Your task to perform on an android device: Go to ESPN.com Image 0: 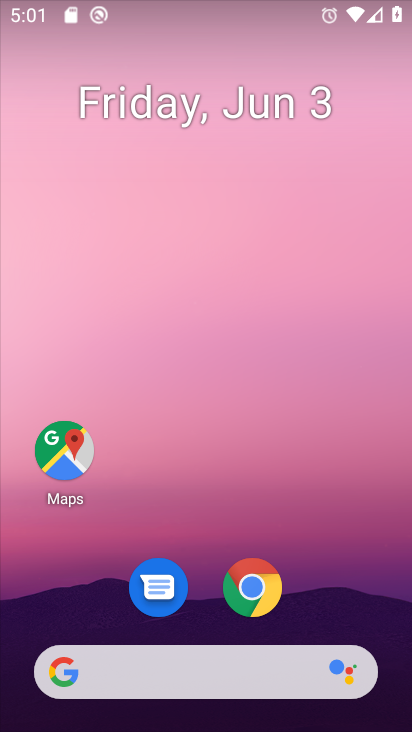
Step 0: click (267, 588)
Your task to perform on an android device: Go to ESPN.com Image 1: 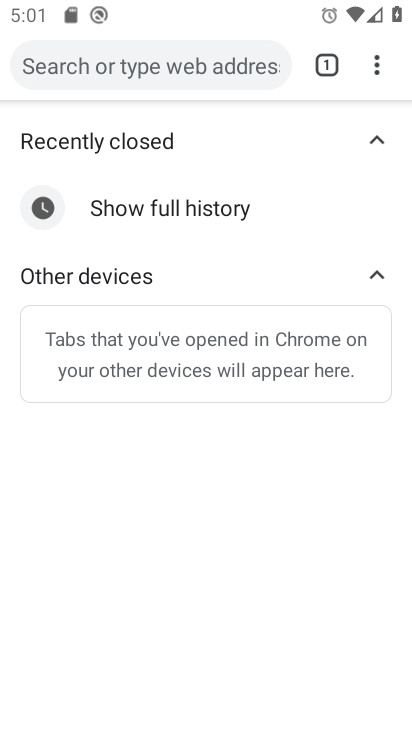
Step 1: click (330, 73)
Your task to perform on an android device: Go to ESPN.com Image 2: 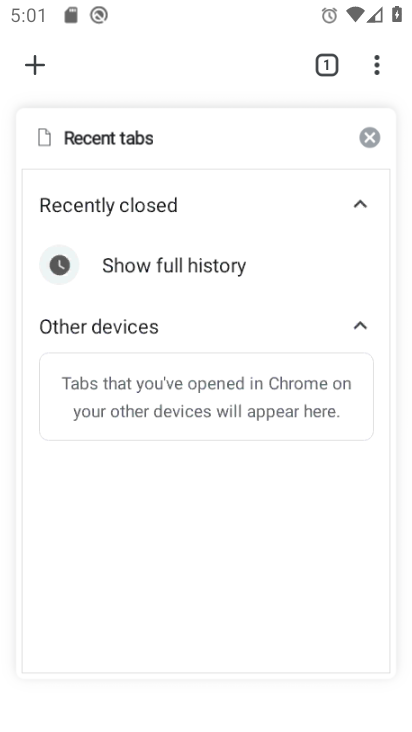
Step 2: click (370, 142)
Your task to perform on an android device: Go to ESPN.com Image 3: 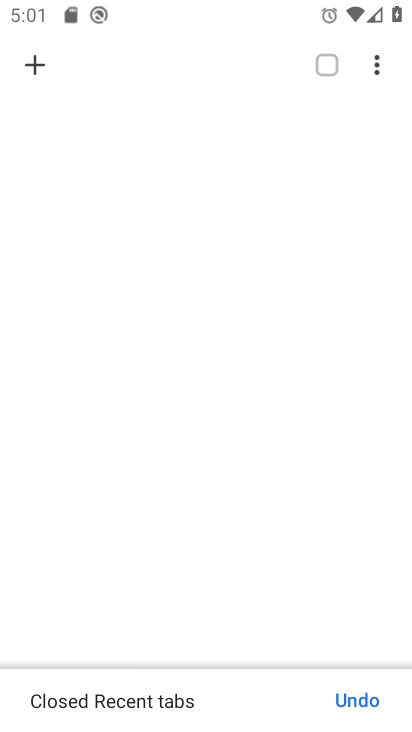
Step 3: click (38, 73)
Your task to perform on an android device: Go to ESPN.com Image 4: 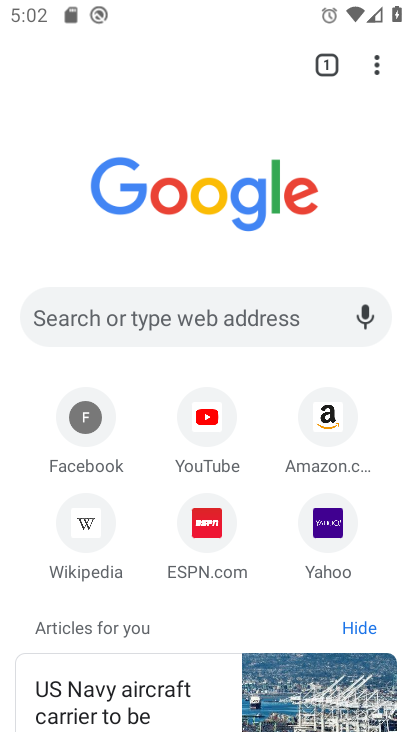
Step 4: click (200, 533)
Your task to perform on an android device: Go to ESPN.com Image 5: 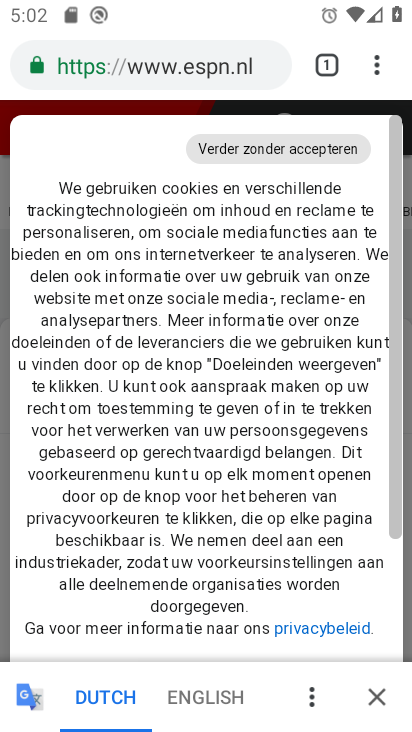
Step 5: task complete